Your task to perform on an android device: open app "Microsoft Outlook" (install if not already installed) Image 0: 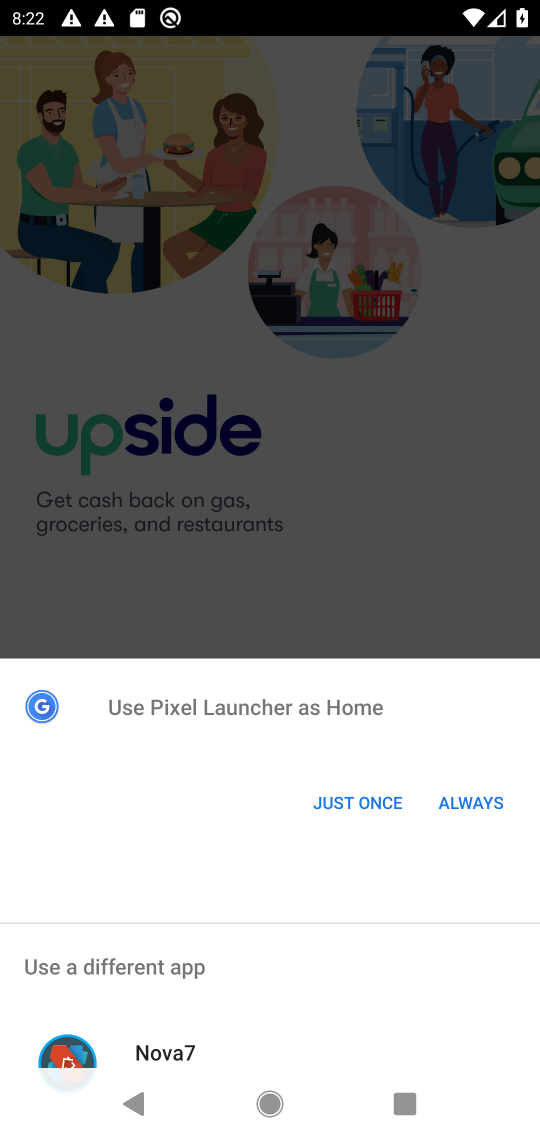
Step 0: click (347, 807)
Your task to perform on an android device: open app "Microsoft Outlook" (install if not already installed) Image 1: 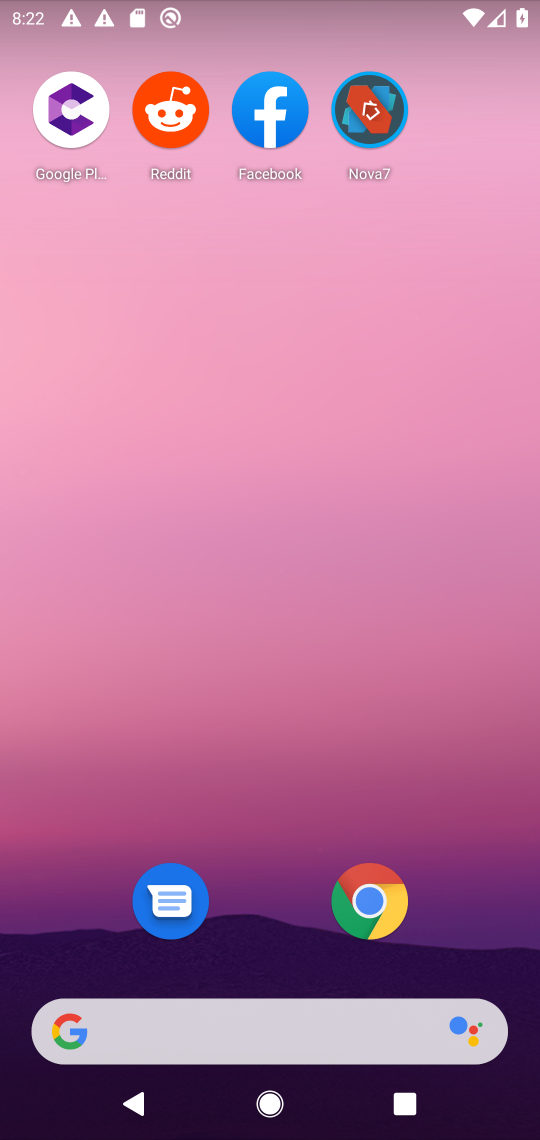
Step 1: drag from (250, 862) to (264, 191)
Your task to perform on an android device: open app "Microsoft Outlook" (install if not already installed) Image 2: 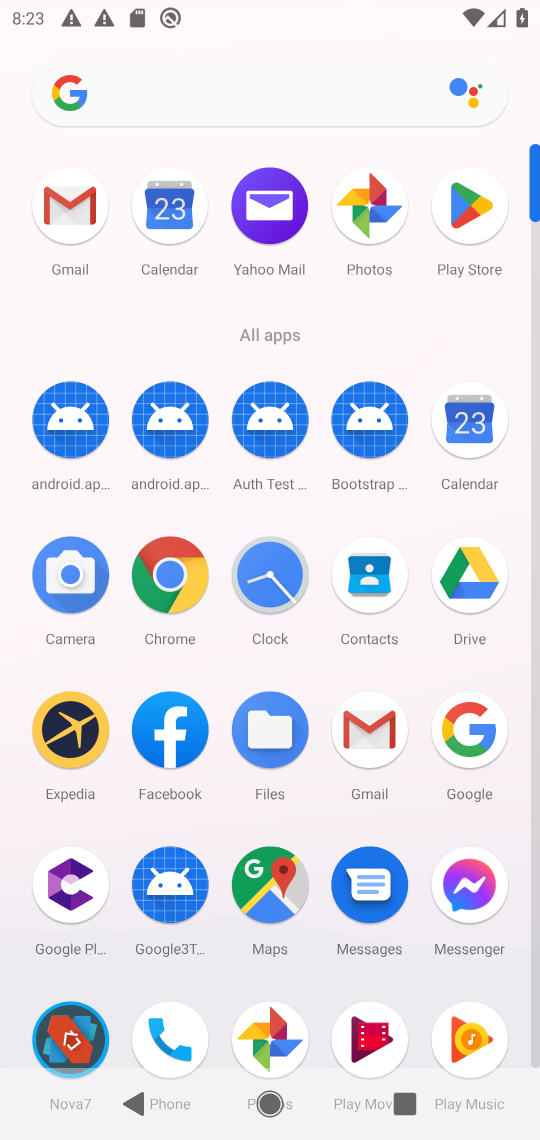
Step 2: click (445, 206)
Your task to perform on an android device: open app "Microsoft Outlook" (install if not already installed) Image 3: 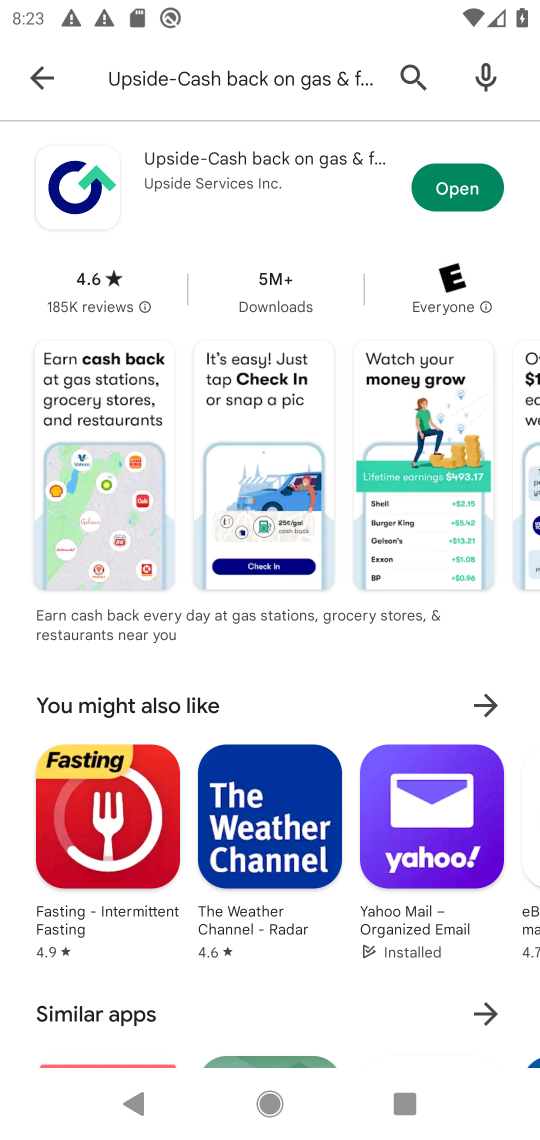
Step 3: press back button
Your task to perform on an android device: open app "Microsoft Outlook" (install if not already installed) Image 4: 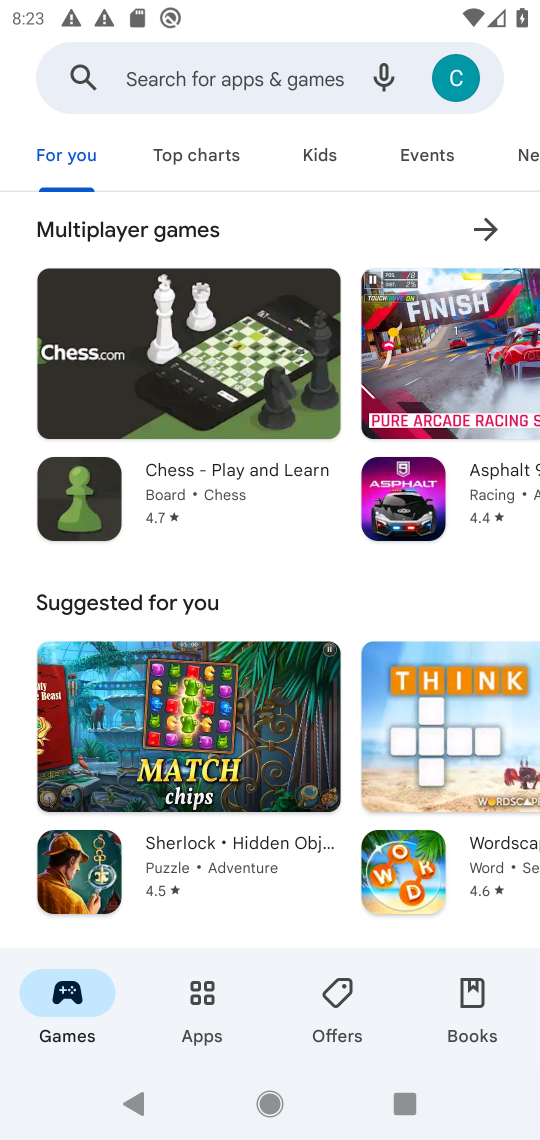
Step 4: click (244, 59)
Your task to perform on an android device: open app "Microsoft Outlook" (install if not already installed) Image 5: 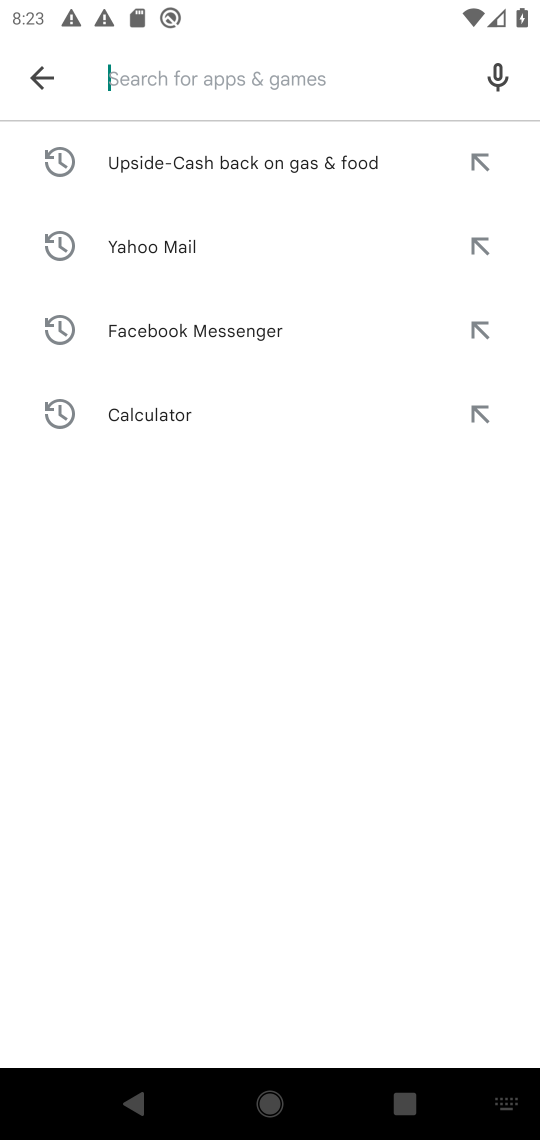
Step 5: type "Microsoft Outlook"
Your task to perform on an android device: open app "Microsoft Outlook" (install if not already installed) Image 6: 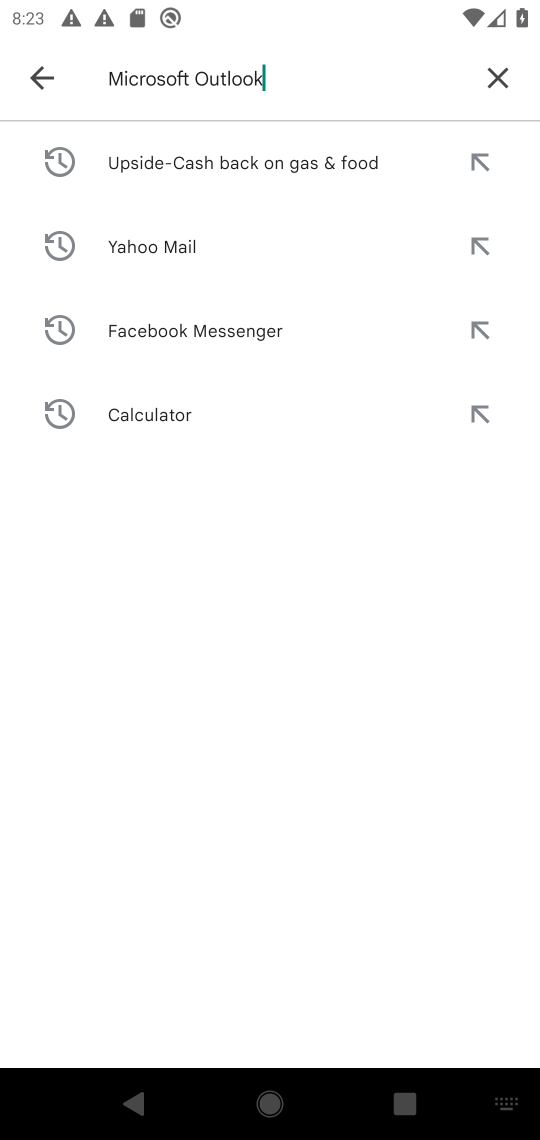
Step 6: press enter
Your task to perform on an android device: open app "Microsoft Outlook" (install if not already installed) Image 7: 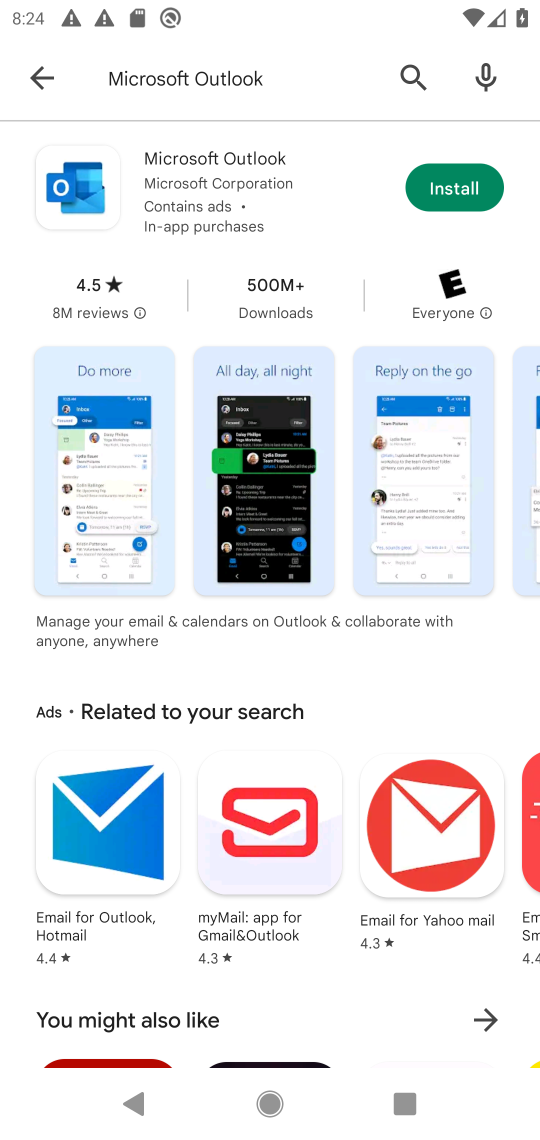
Step 7: click (469, 189)
Your task to perform on an android device: open app "Microsoft Outlook" (install if not already installed) Image 8: 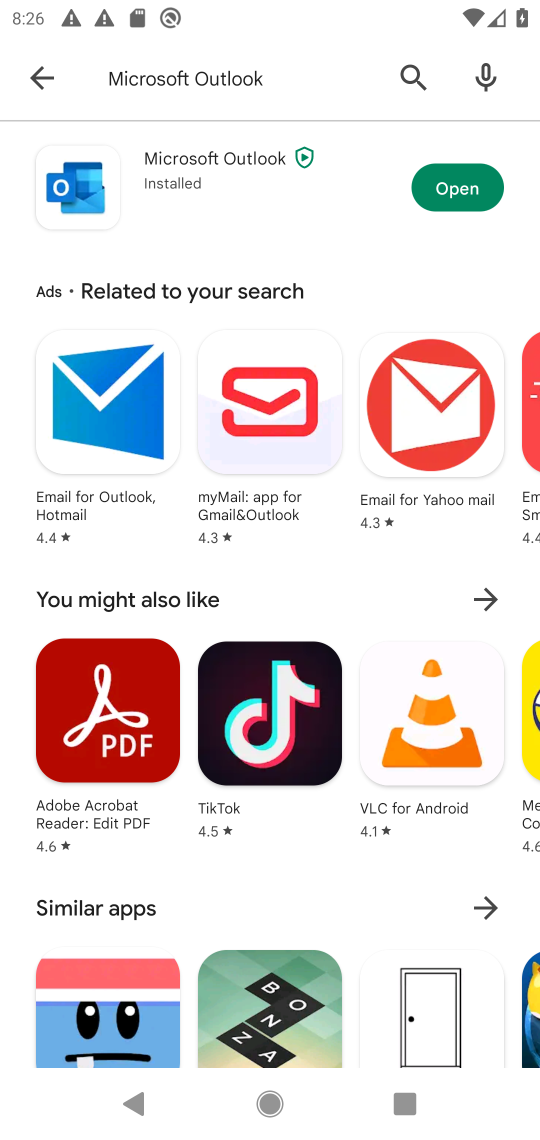
Step 8: click (467, 182)
Your task to perform on an android device: open app "Microsoft Outlook" (install if not already installed) Image 9: 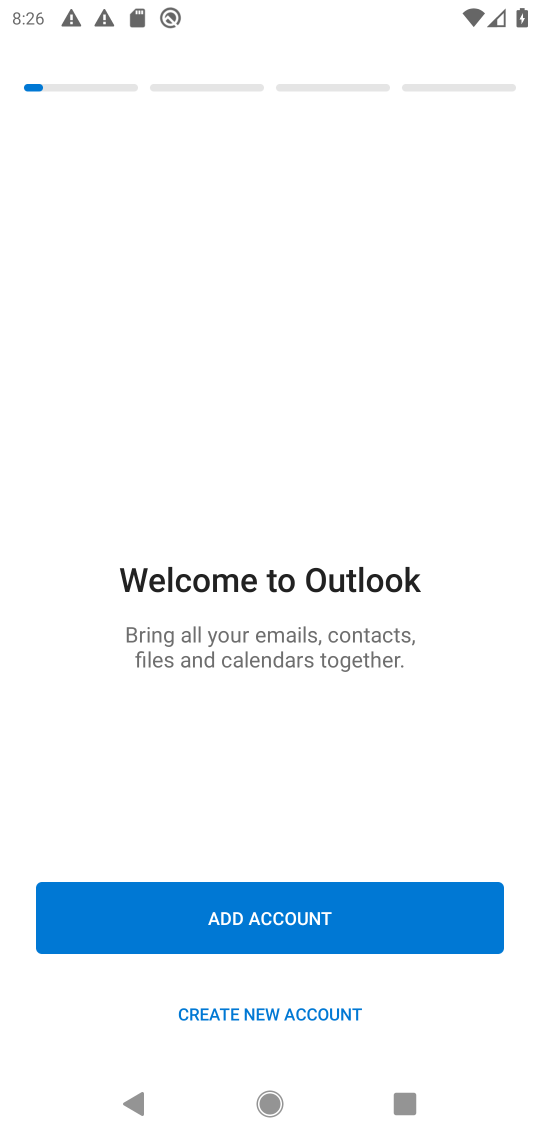
Step 9: task complete